Your task to perform on an android device: Go to notification settings Image 0: 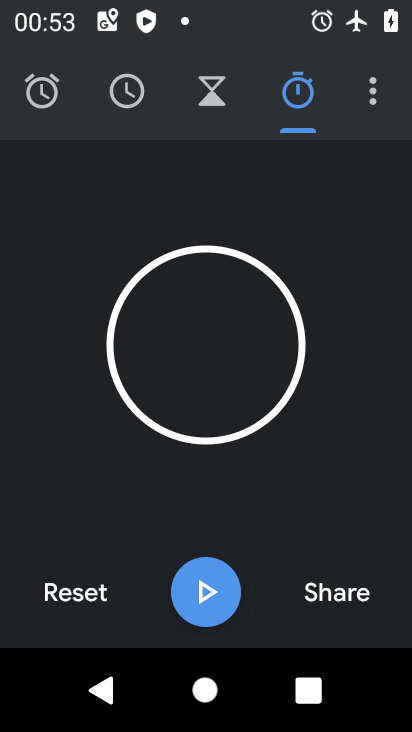
Step 0: press home button
Your task to perform on an android device: Go to notification settings Image 1: 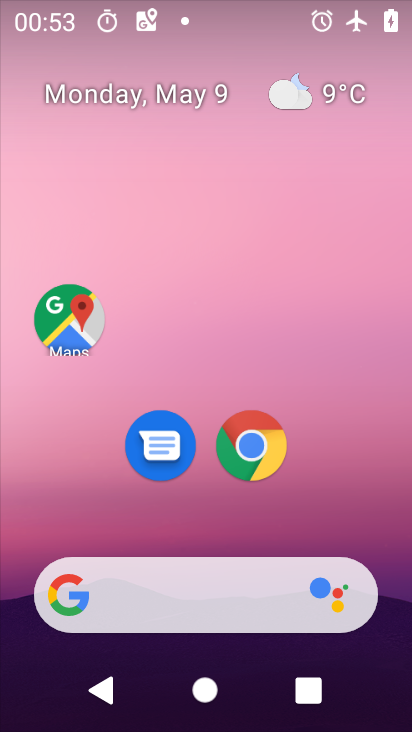
Step 1: drag from (360, 356) to (367, 5)
Your task to perform on an android device: Go to notification settings Image 2: 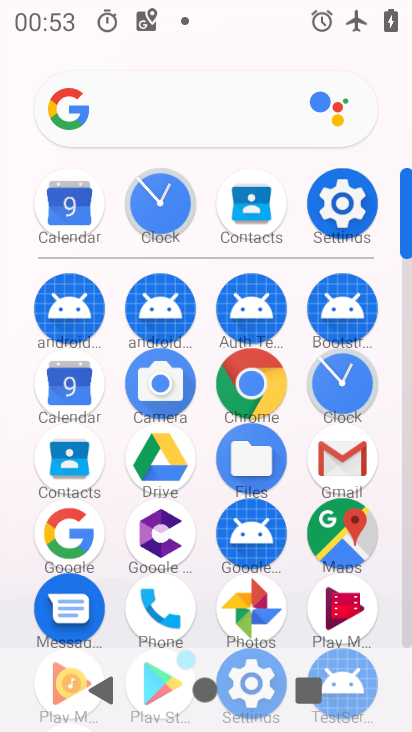
Step 2: click (347, 194)
Your task to perform on an android device: Go to notification settings Image 3: 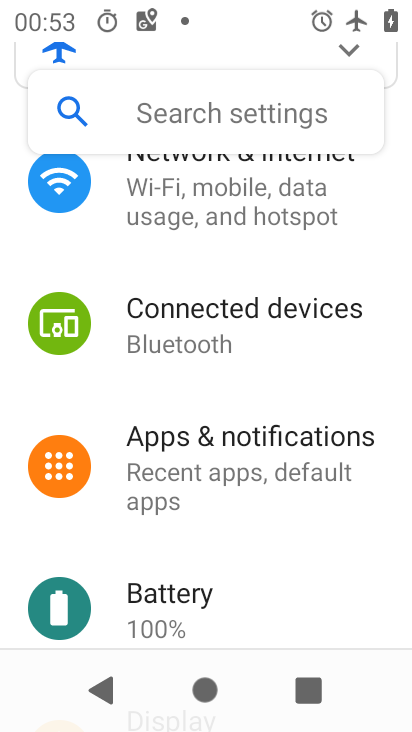
Step 3: click (257, 469)
Your task to perform on an android device: Go to notification settings Image 4: 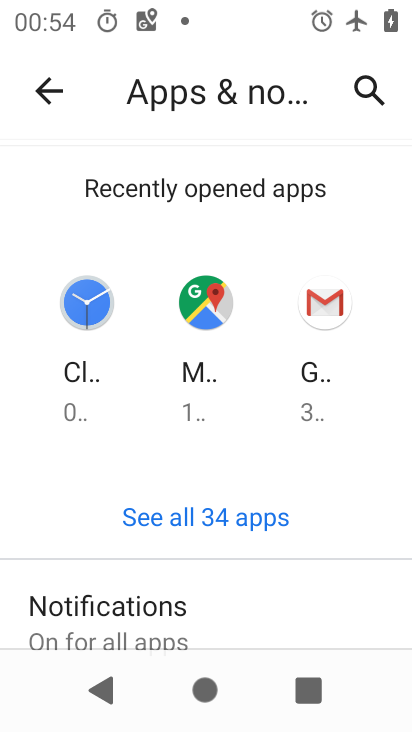
Step 4: task complete